Your task to perform on an android device: Open calendar and show me the fourth week of next month Image 0: 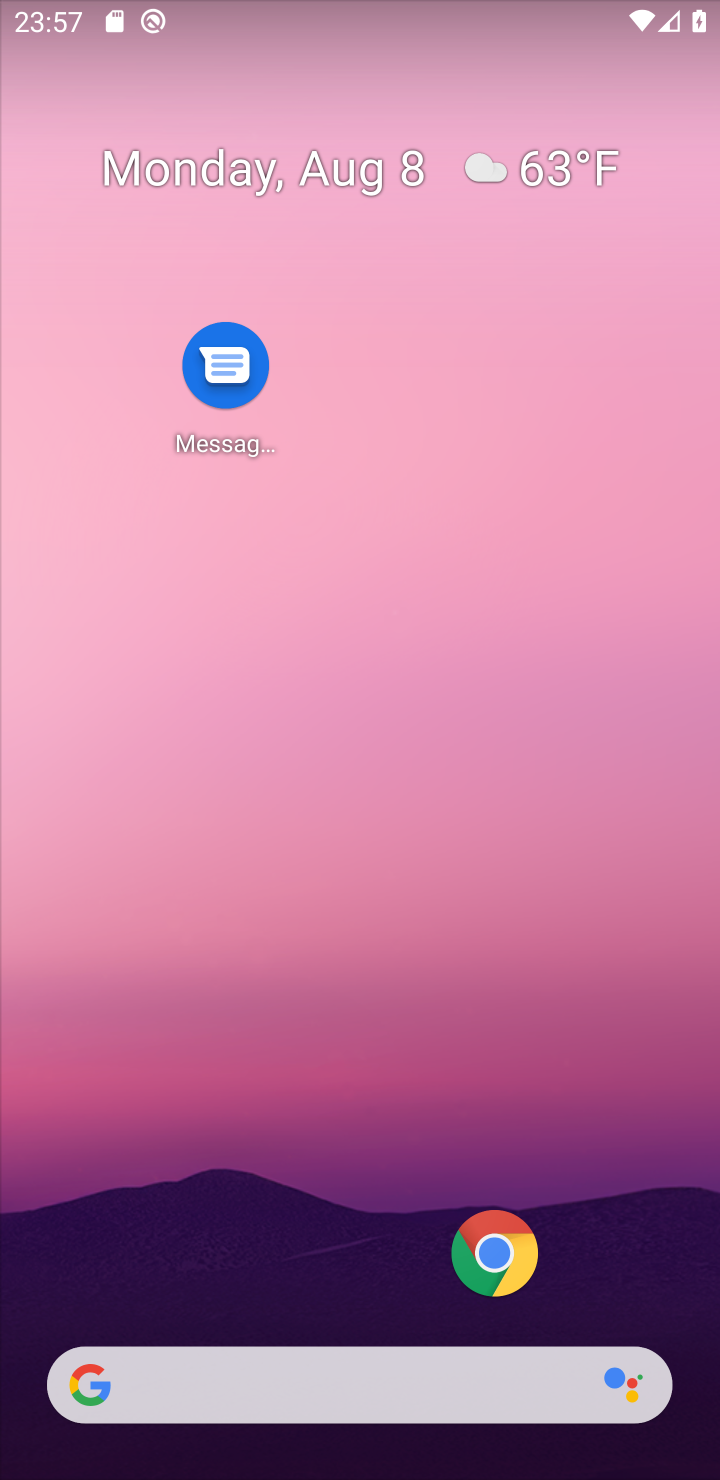
Step 0: drag from (224, 1244) to (221, 205)
Your task to perform on an android device: Open calendar and show me the fourth week of next month Image 1: 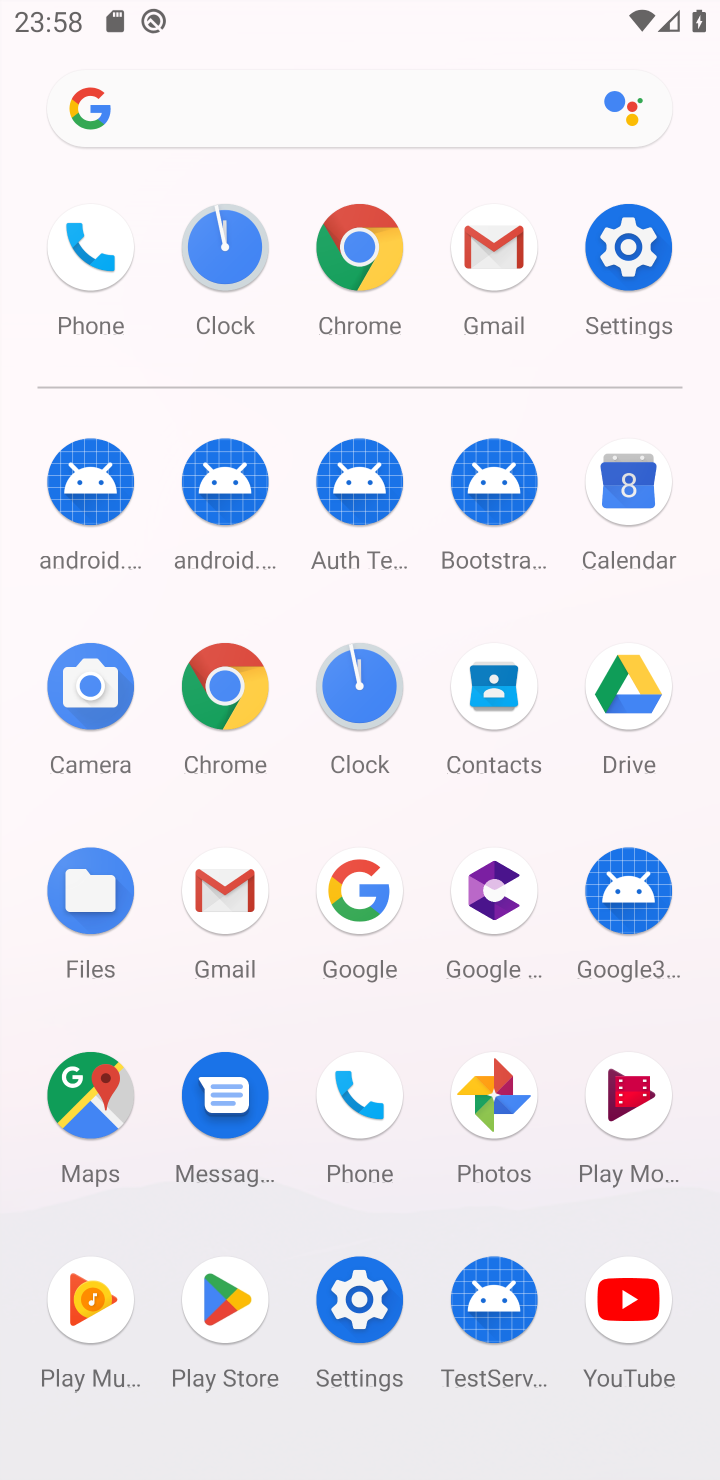
Step 1: click (638, 485)
Your task to perform on an android device: Open calendar and show me the fourth week of next month Image 2: 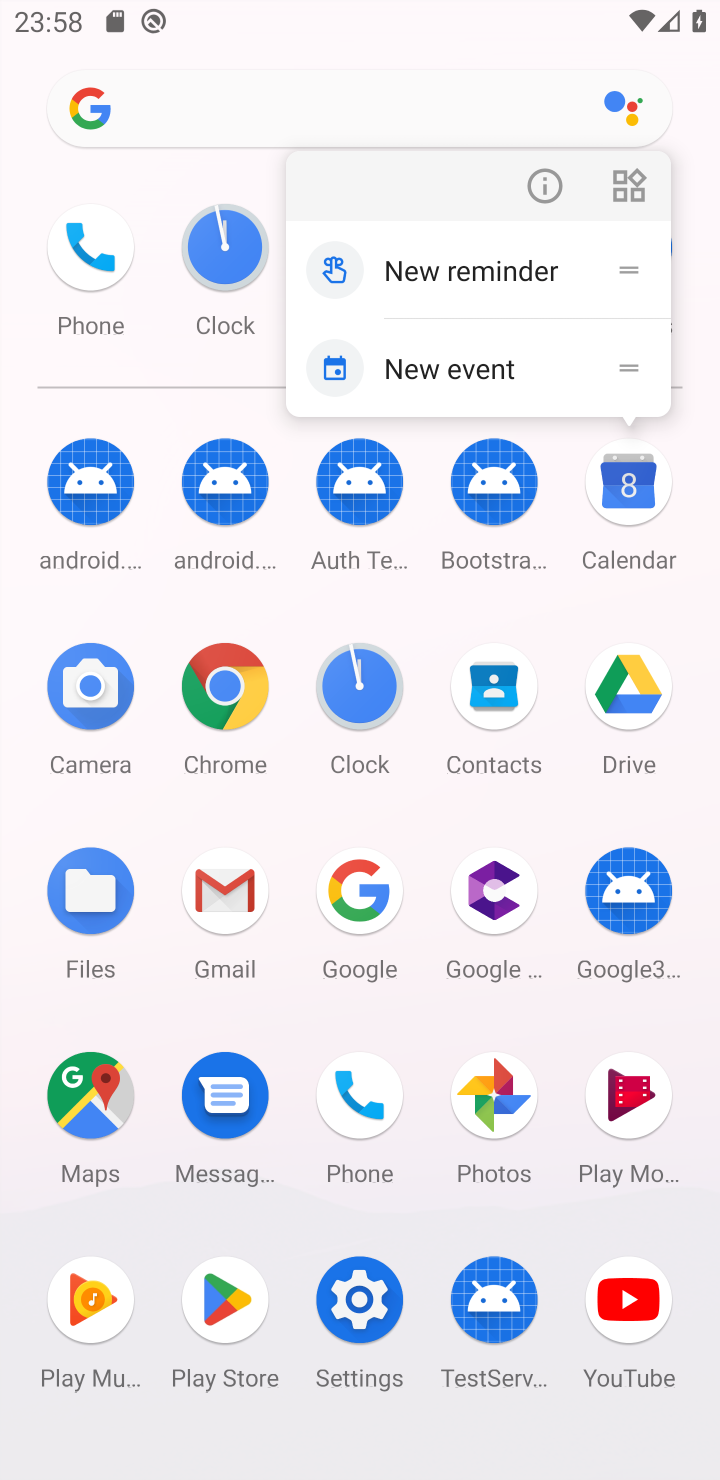
Step 2: click (643, 487)
Your task to perform on an android device: Open calendar and show me the fourth week of next month Image 3: 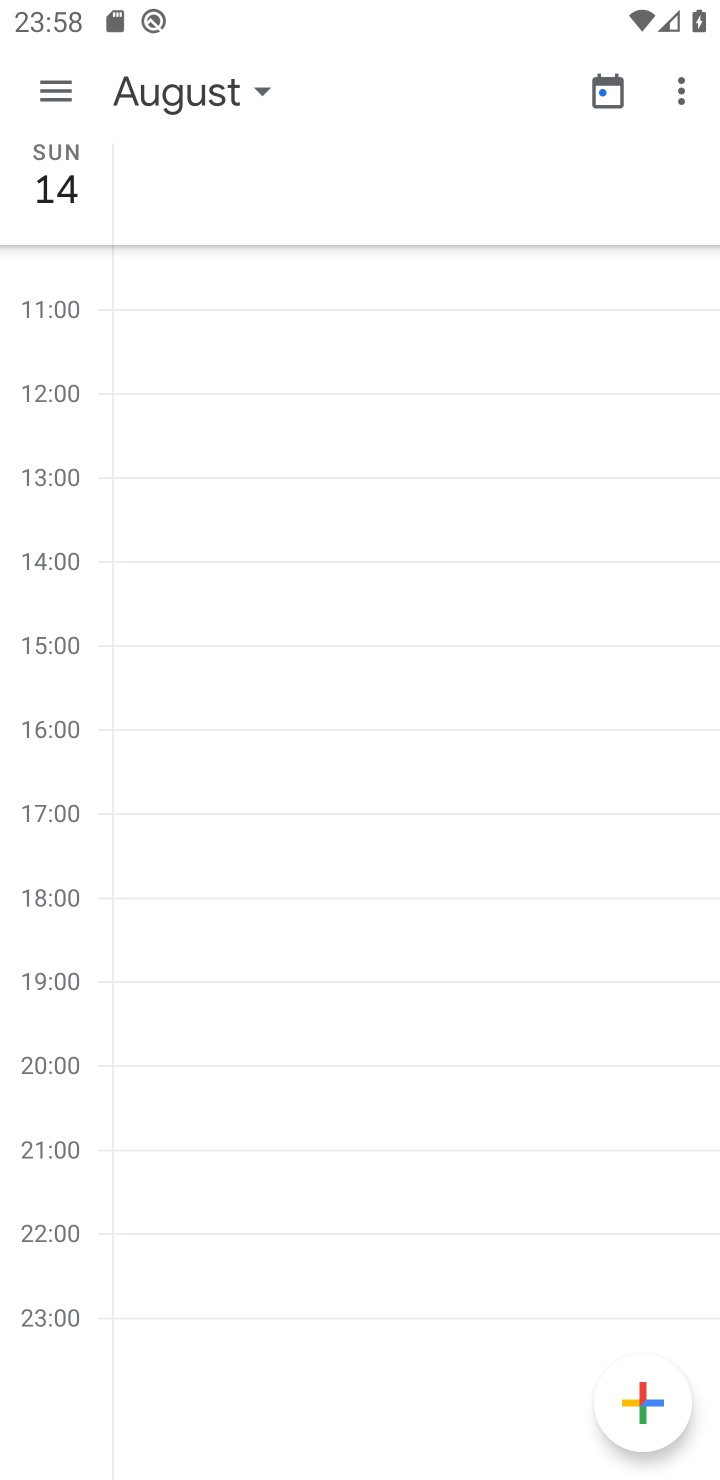
Step 3: click (51, 91)
Your task to perform on an android device: Open calendar and show me the fourth week of next month Image 4: 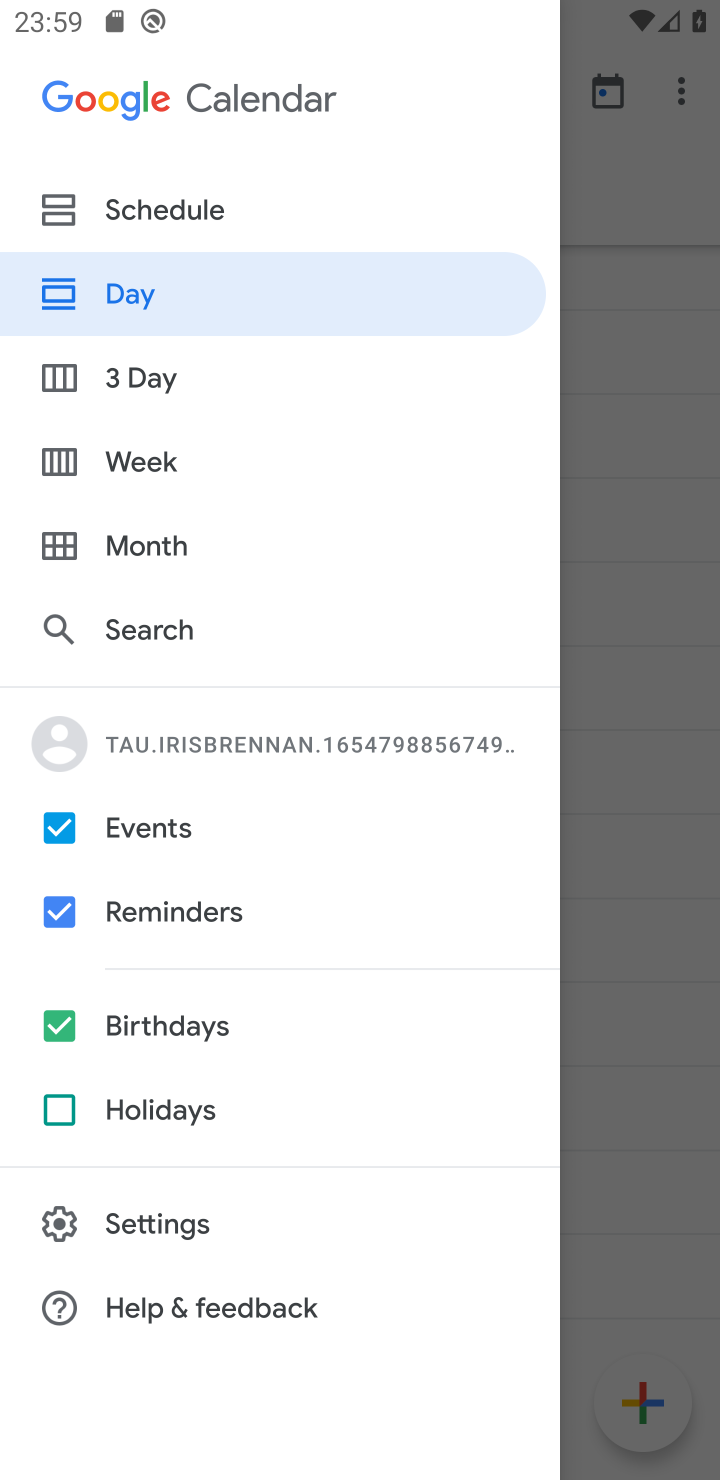
Step 4: click (173, 467)
Your task to perform on an android device: Open calendar and show me the fourth week of next month Image 5: 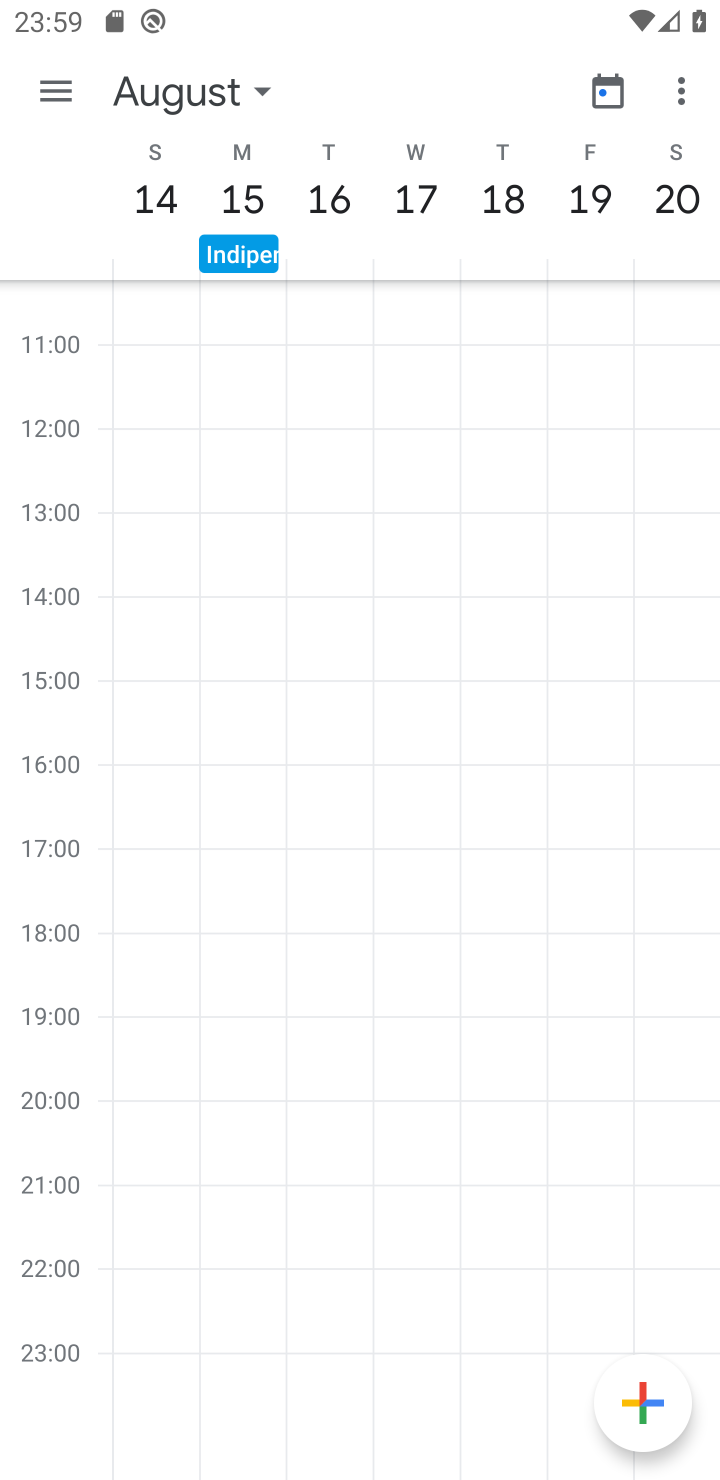
Step 5: task complete